Your task to perform on an android device: Open Google Chrome and open the bookmarks view Image 0: 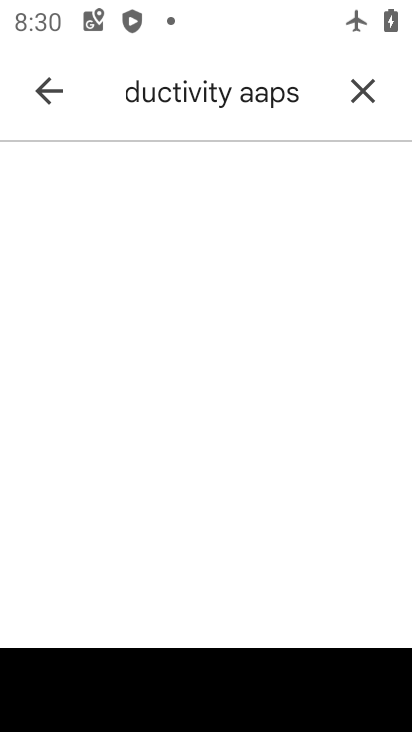
Step 0: press home button
Your task to perform on an android device: Open Google Chrome and open the bookmarks view Image 1: 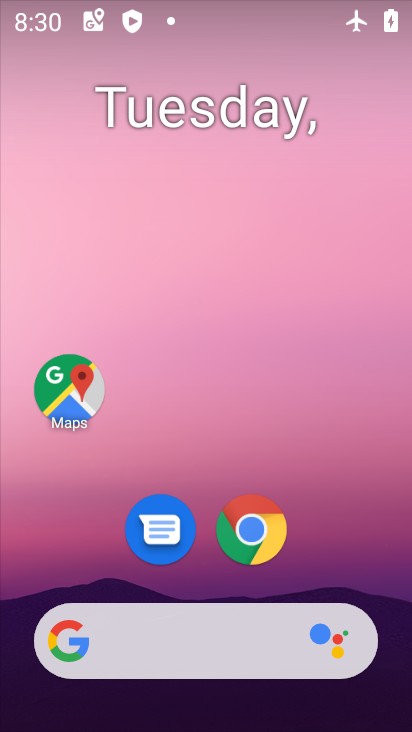
Step 1: click (261, 542)
Your task to perform on an android device: Open Google Chrome and open the bookmarks view Image 2: 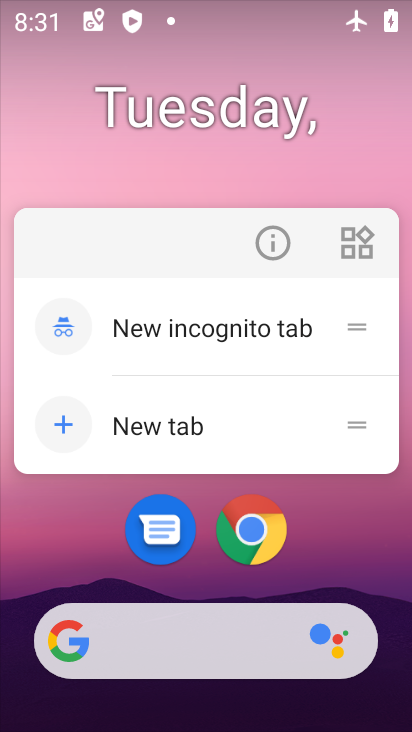
Step 2: click (273, 542)
Your task to perform on an android device: Open Google Chrome and open the bookmarks view Image 3: 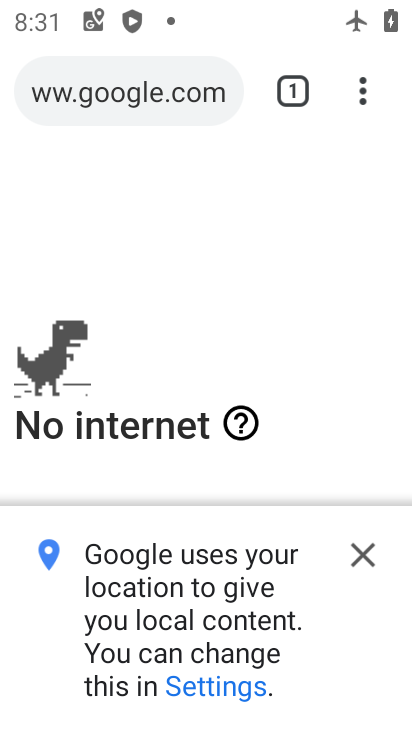
Step 3: click (361, 103)
Your task to perform on an android device: Open Google Chrome and open the bookmarks view Image 4: 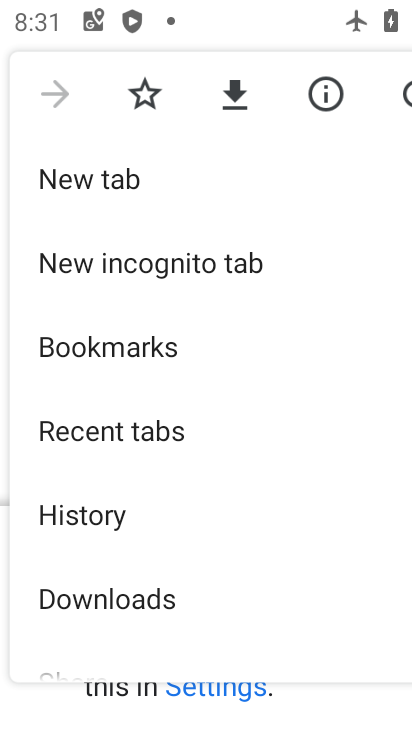
Step 4: click (111, 360)
Your task to perform on an android device: Open Google Chrome and open the bookmarks view Image 5: 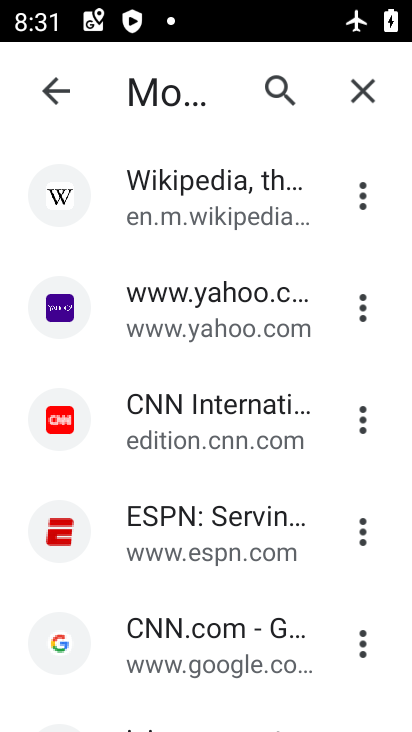
Step 5: click (224, 463)
Your task to perform on an android device: Open Google Chrome and open the bookmarks view Image 6: 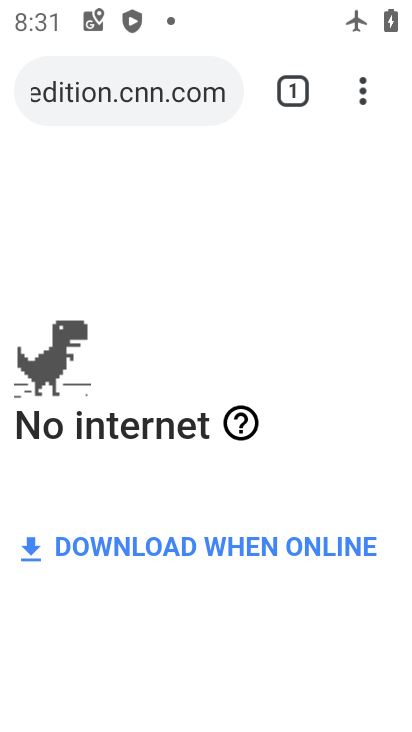
Step 6: task complete